Your task to perform on an android device: set an alarm Image 0: 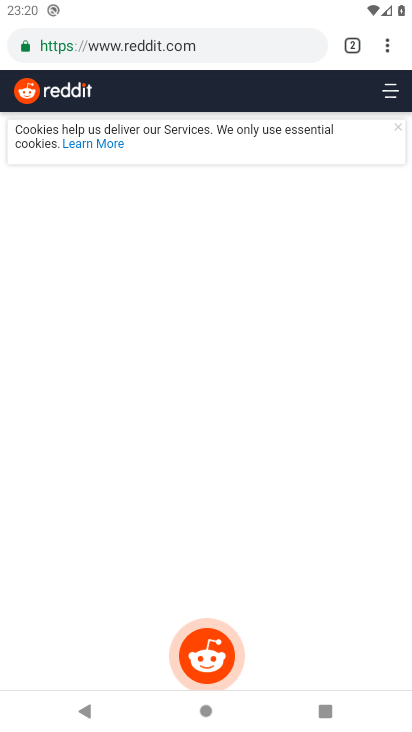
Step 0: press home button
Your task to perform on an android device: set an alarm Image 1: 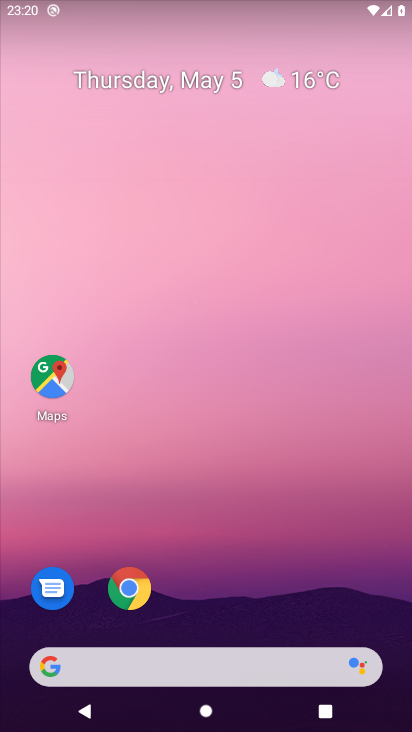
Step 1: drag from (252, 592) to (283, 227)
Your task to perform on an android device: set an alarm Image 2: 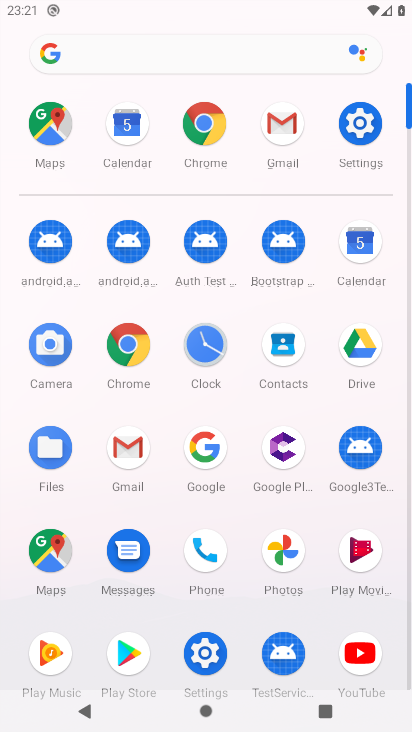
Step 2: click (210, 342)
Your task to perform on an android device: set an alarm Image 3: 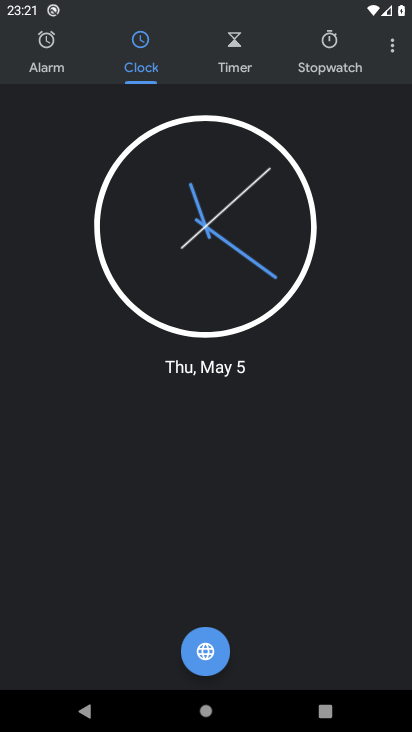
Step 3: click (47, 41)
Your task to perform on an android device: set an alarm Image 4: 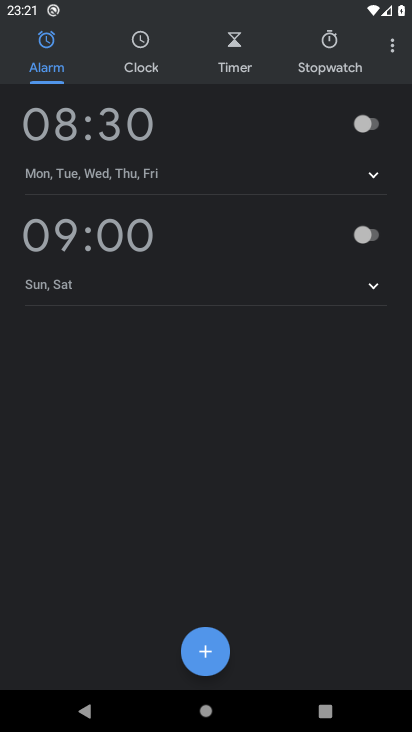
Step 4: click (218, 654)
Your task to perform on an android device: set an alarm Image 5: 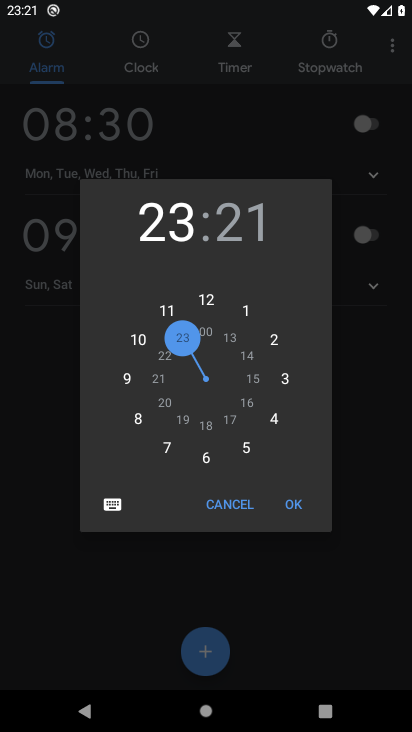
Step 5: click (293, 505)
Your task to perform on an android device: set an alarm Image 6: 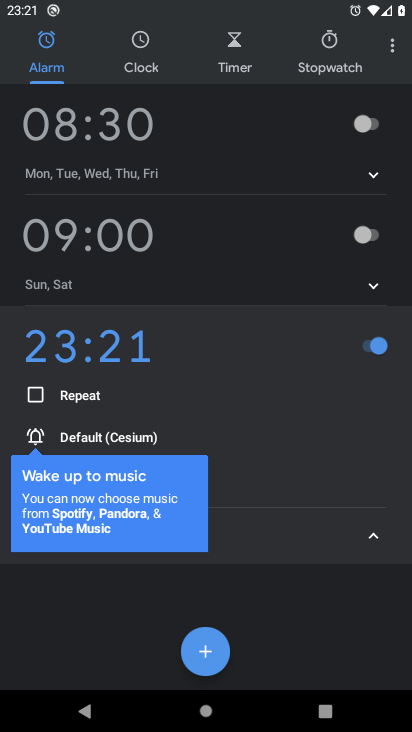
Step 6: task complete